Your task to perform on an android device: turn on translation in the chrome app Image 0: 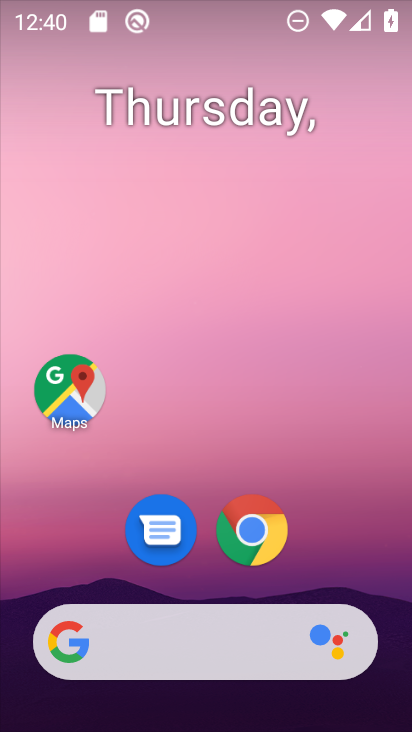
Step 0: click (250, 565)
Your task to perform on an android device: turn on translation in the chrome app Image 1: 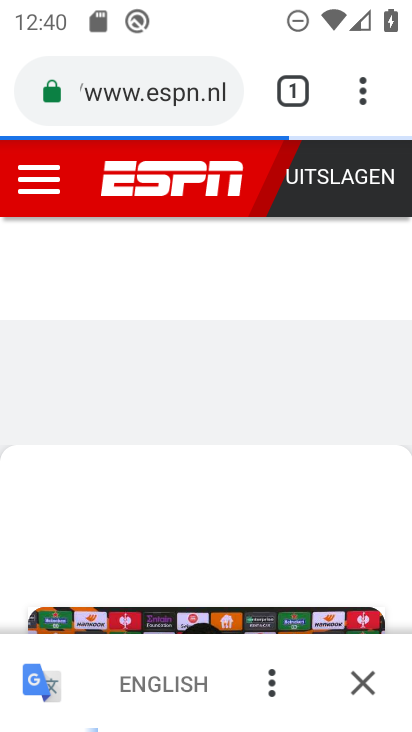
Step 1: drag from (361, 89) to (85, 555)
Your task to perform on an android device: turn on translation in the chrome app Image 2: 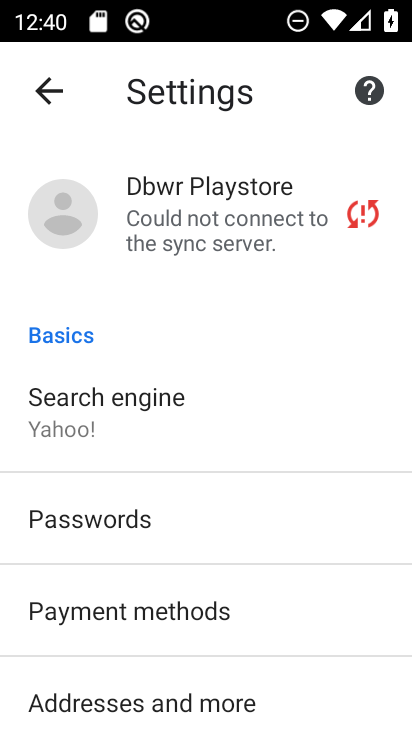
Step 2: drag from (126, 650) to (148, 175)
Your task to perform on an android device: turn on translation in the chrome app Image 3: 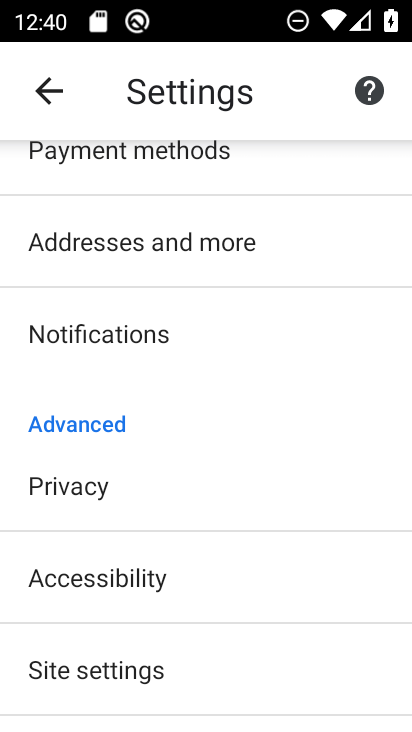
Step 3: drag from (141, 650) to (89, 8)
Your task to perform on an android device: turn on translation in the chrome app Image 4: 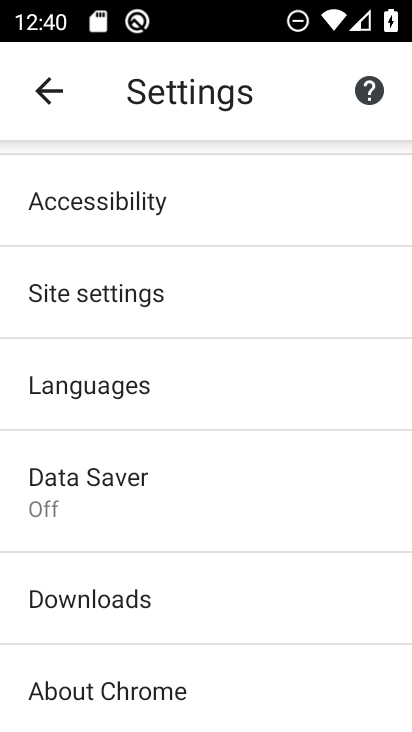
Step 4: click (96, 398)
Your task to perform on an android device: turn on translation in the chrome app Image 5: 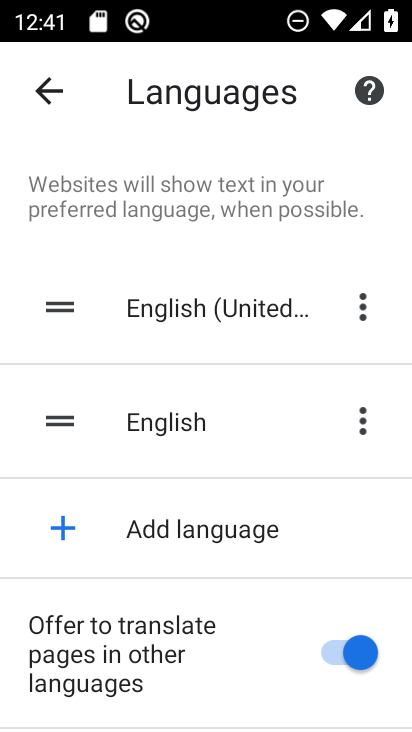
Step 5: task complete